Your task to perform on an android device: open chrome and create a bookmark for the current page Image 0: 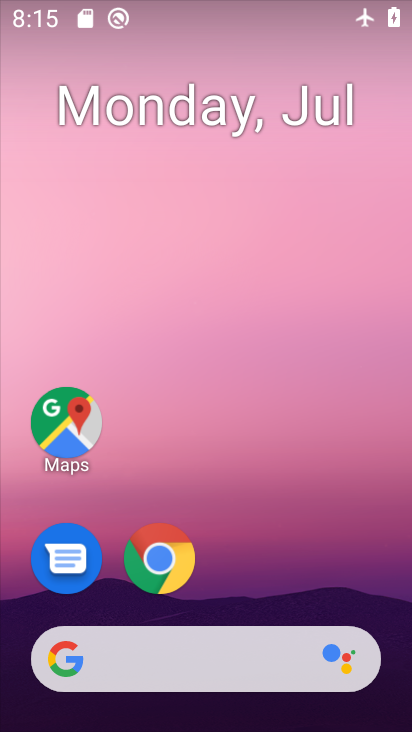
Step 0: drag from (347, 553) to (366, 151)
Your task to perform on an android device: open chrome and create a bookmark for the current page Image 1: 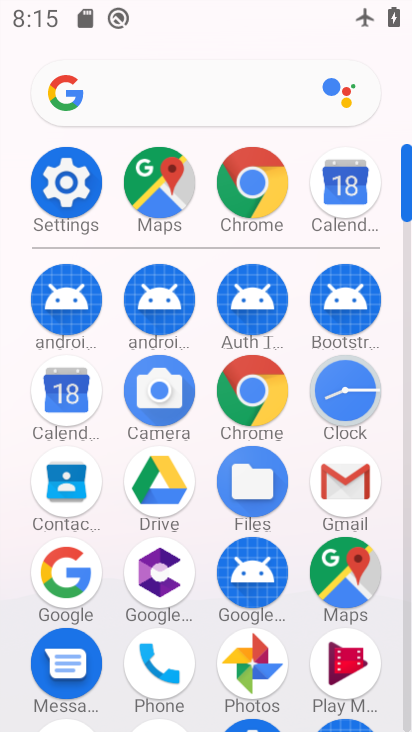
Step 1: click (254, 397)
Your task to perform on an android device: open chrome and create a bookmark for the current page Image 2: 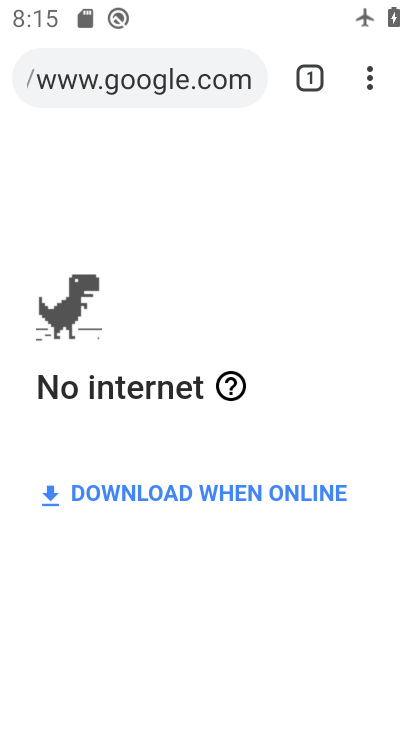
Step 2: click (373, 86)
Your task to perform on an android device: open chrome and create a bookmark for the current page Image 3: 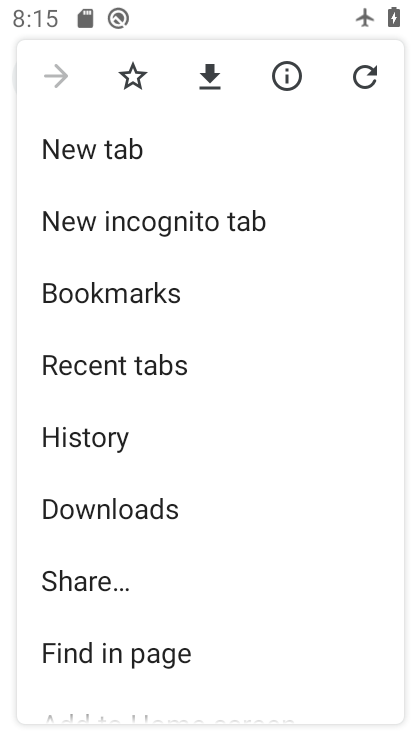
Step 3: click (125, 72)
Your task to perform on an android device: open chrome and create a bookmark for the current page Image 4: 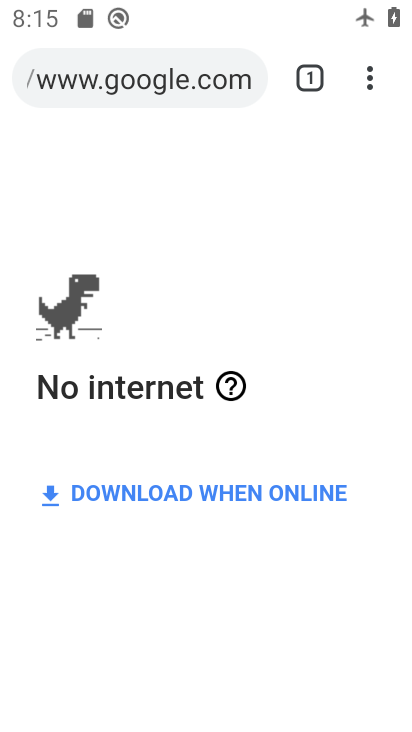
Step 4: task complete